Your task to perform on an android device: check the backup settings in the google photos Image 0: 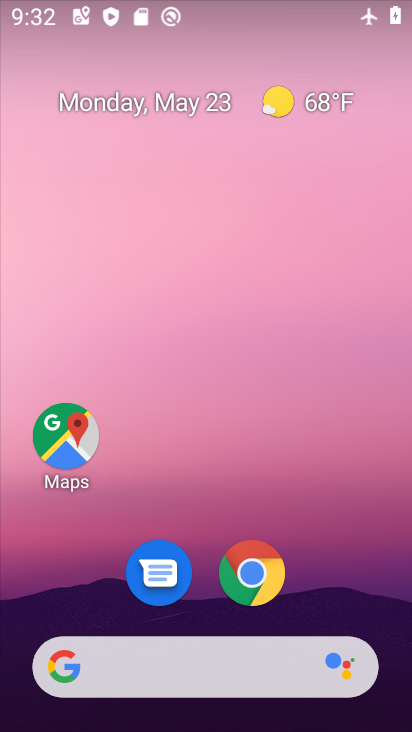
Step 0: drag from (298, 670) to (355, 207)
Your task to perform on an android device: check the backup settings in the google photos Image 1: 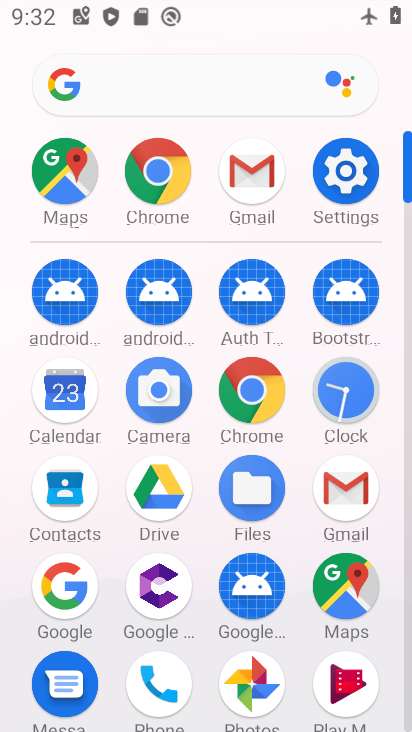
Step 1: drag from (300, 533) to (330, 238)
Your task to perform on an android device: check the backup settings in the google photos Image 2: 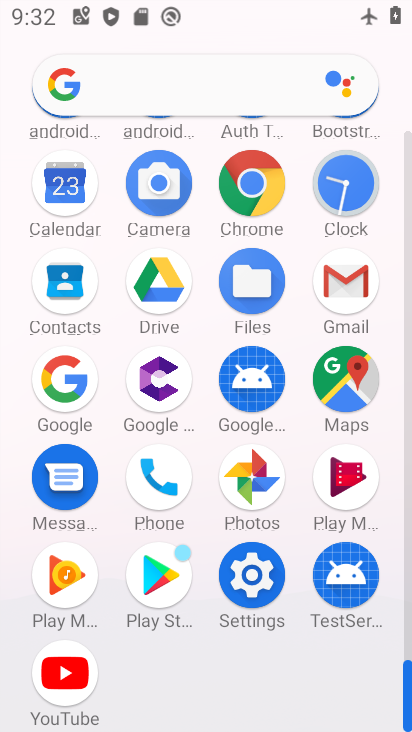
Step 2: click (264, 489)
Your task to perform on an android device: check the backup settings in the google photos Image 3: 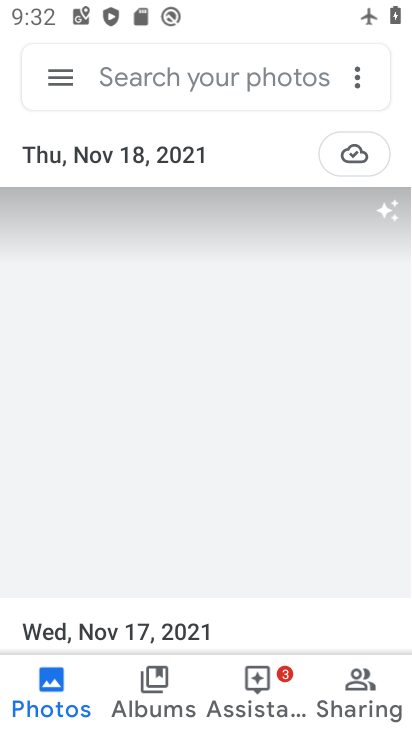
Step 3: click (75, 81)
Your task to perform on an android device: check the backup settings in the google photos Image 4: 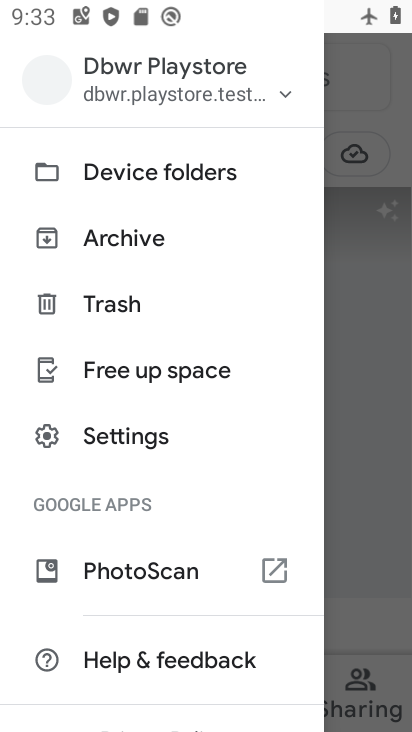
Step 4: click (171, 437)
Your task to perform on an android device: check the backup settings in the google photos Image 5: 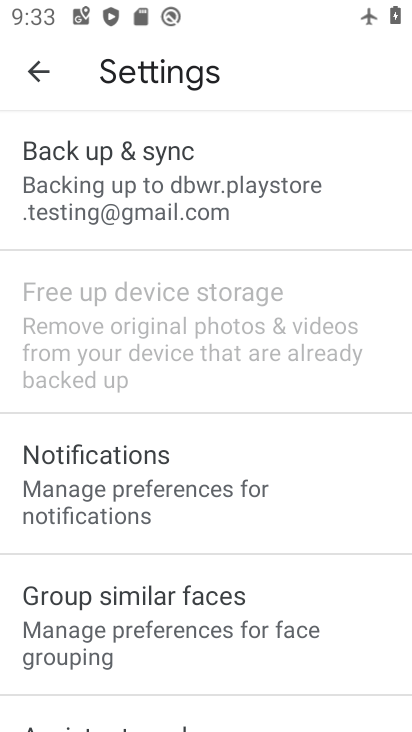
Step 5: click (218, 188)
Your task to perform on an android device: check the backup settings in the google photos Image 6: 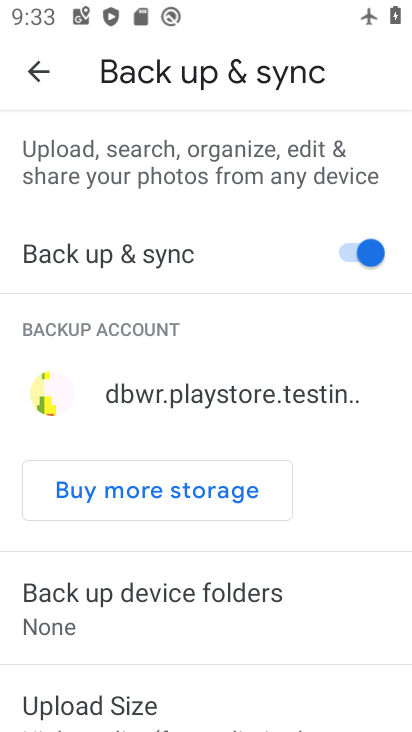
Step 6: task complete